Your task to perform on an android device: set the timer Image 0: 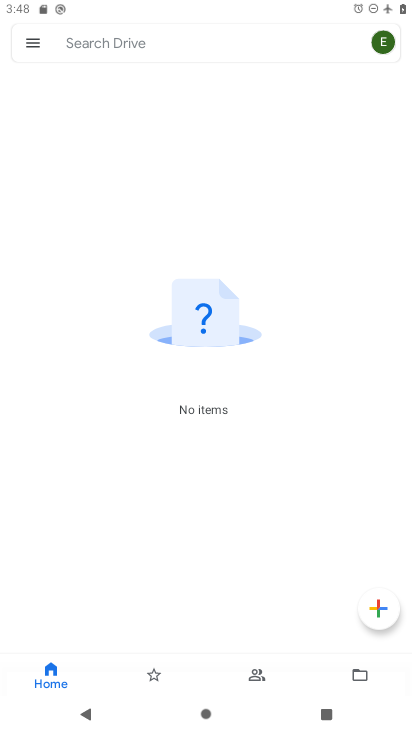
Step 0: press home button
Your task to perform on an android device: set the timer Image 1: 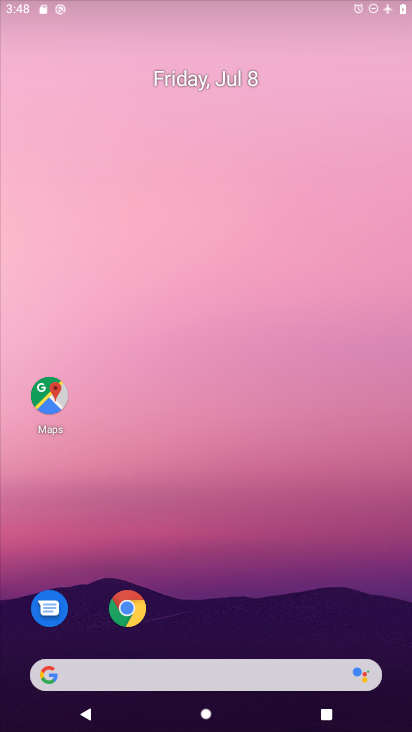
Step 1: drag from (268, 649) to (311, 5)
Your task to perform on an android device: set the timer Image 2: 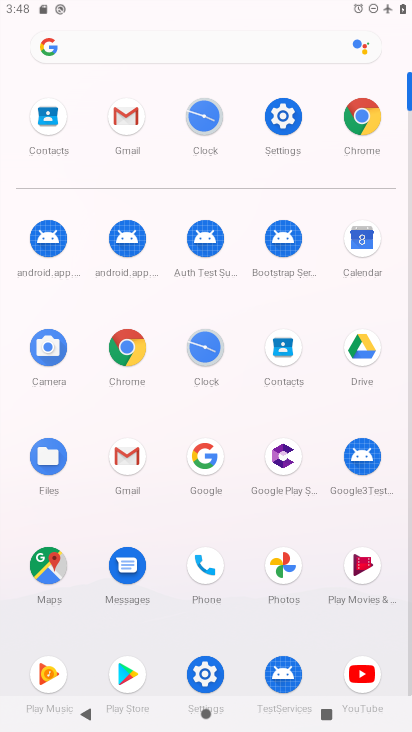
Step 2: click (199, 351)
Your task to perform on an android device: set the timer Image 3: 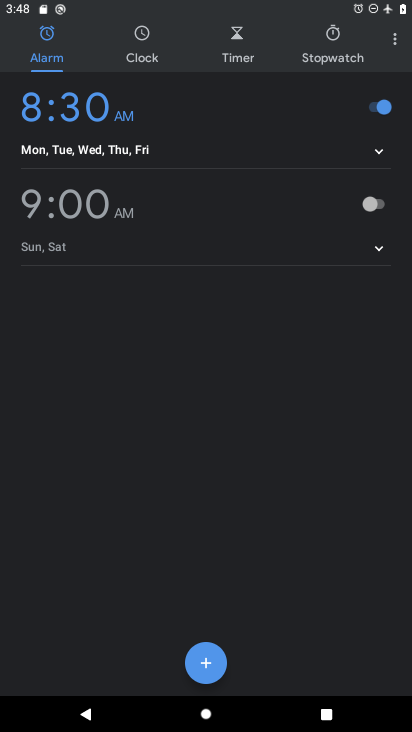
Step 3: click (397, 45)
Your task to perform on an android device: set the timer Image 4: 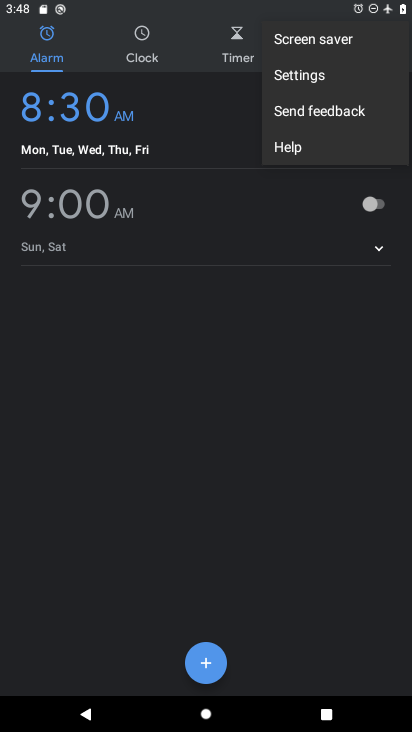
Step 4: click (306, 71)
Your task to perform on an android device: set the timer Image 5: 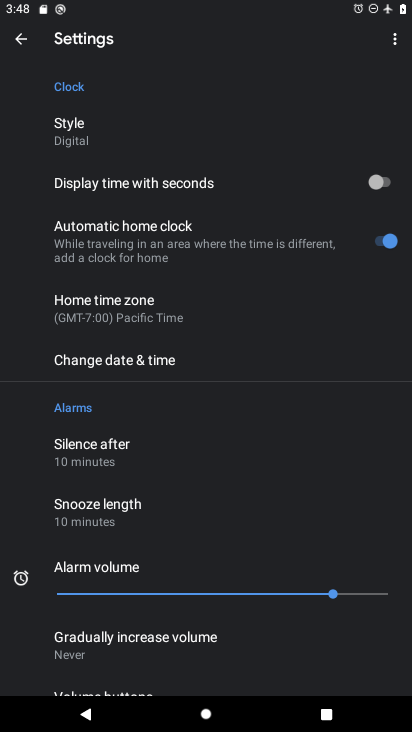
Step 5: press back button
Your task to perform on an android device: set the timer Image 6: 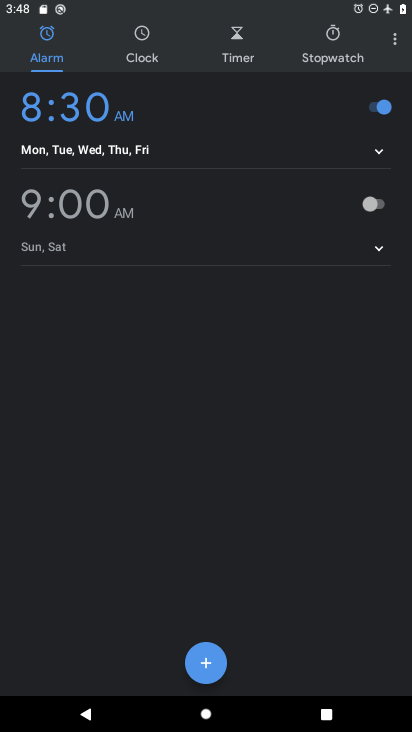
Step 6: click (246, 51)
Your task to perform on an android device: set the timer Image 7: 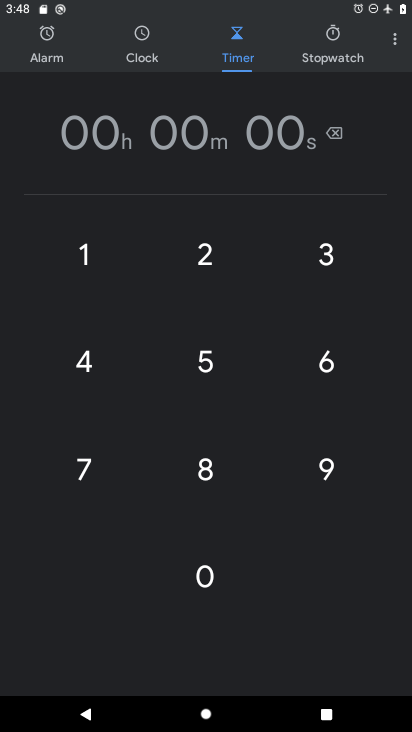
Step 7: click (108, 133)
Your task to perform on an android device: set the timer Image 8: 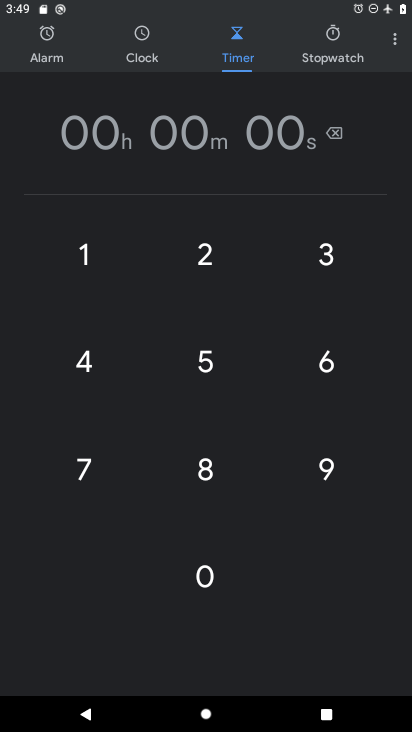
Step 8: click (97, 127)
Your task to perform on an android device: set the timer Image 9: 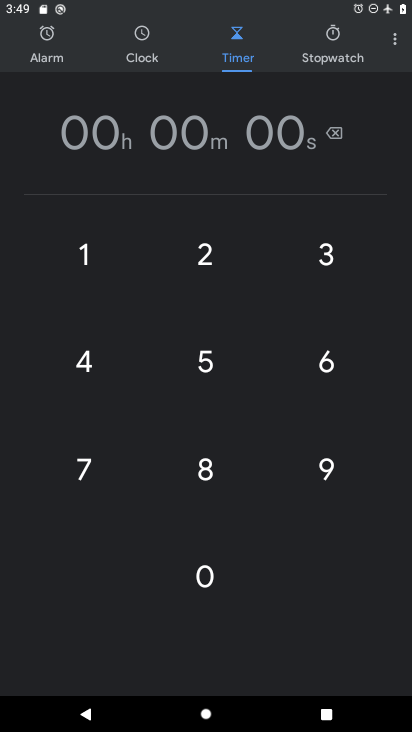
Step 9: click (204, 345)
Your task to perform on an android device: set the timer Image 10: 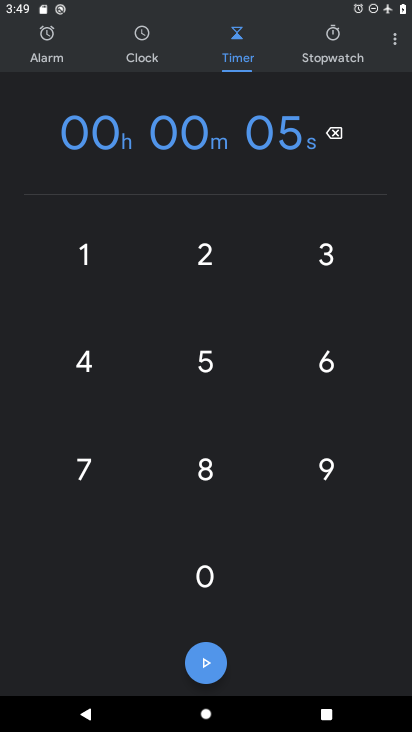
Step 10: click (196, 258)
Your task to perform on an android device: set the timer Image 11: 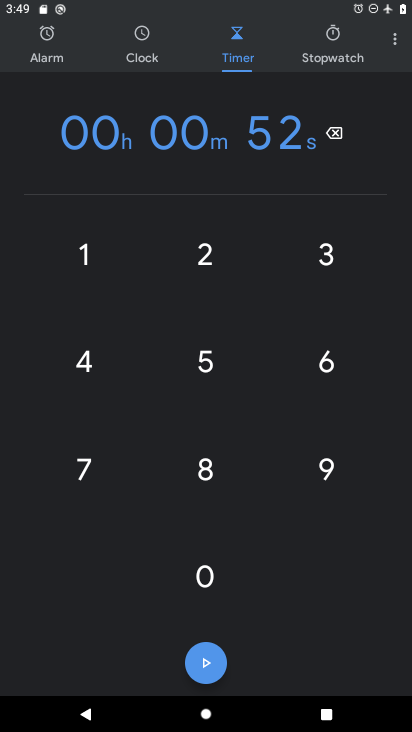
Step 11: click (308, 250)
Your task to perform on an android device: set the timer Image 12: 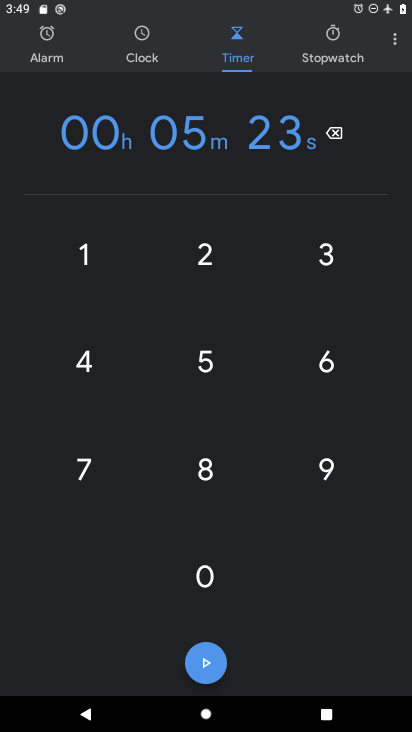
Step 12: click (335, 345)
Your task to perform on an android device: set the timer Image 13: 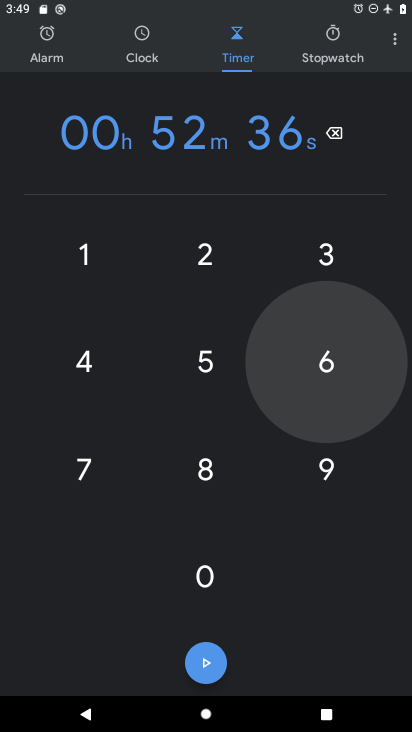
Step 13: click (323, 442)
Your task to perform on an android device: set the timer Image 14: 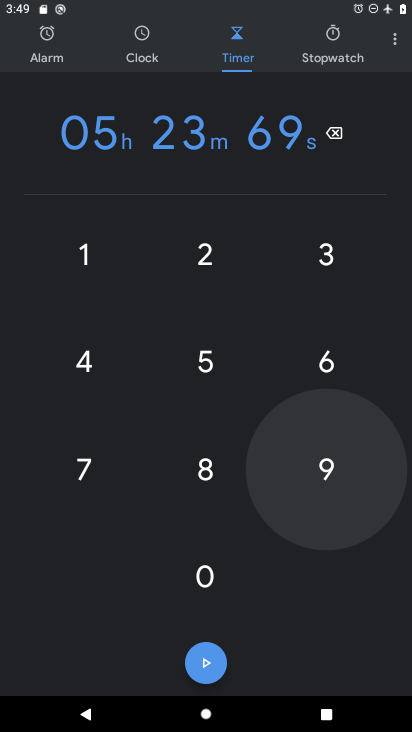
Step 14: click (146, 450)
Your task to perform on an android device: set the timer Image 15: 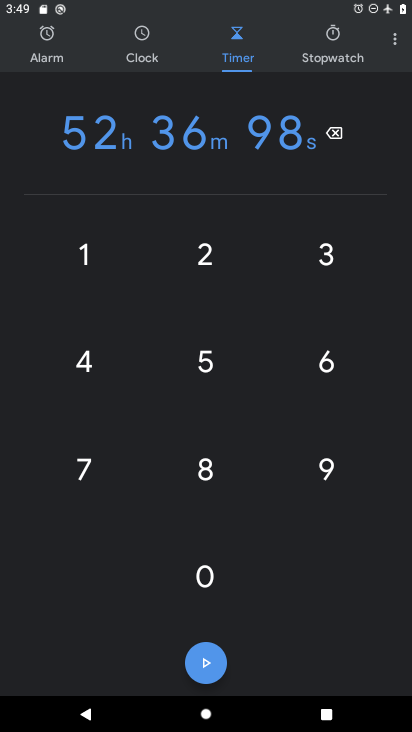
Step 15: click (195, 666)
Your task to perform on an android device: set the timer Image 16: 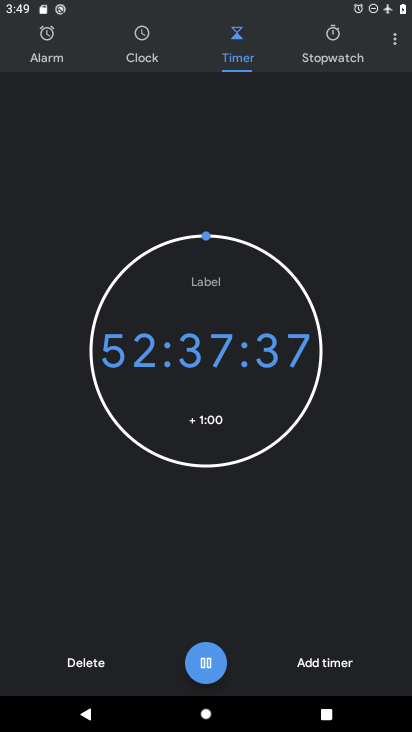
Step 16: task complete